Your task to perform on an android device: turn on location history Image 0: 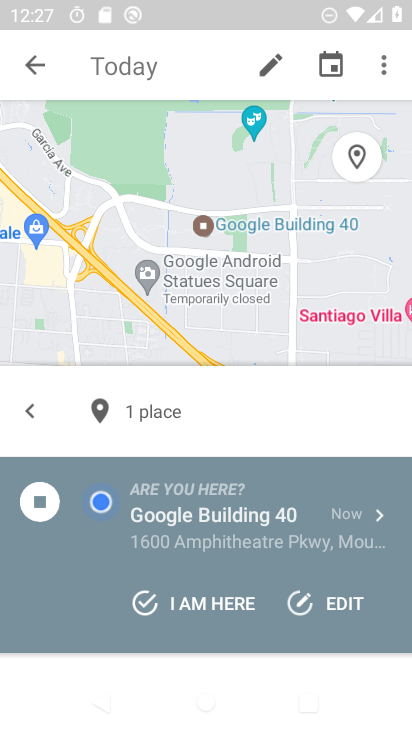
Step 0: press home button
Your task to perform on an android device: turn on location history Image 1: 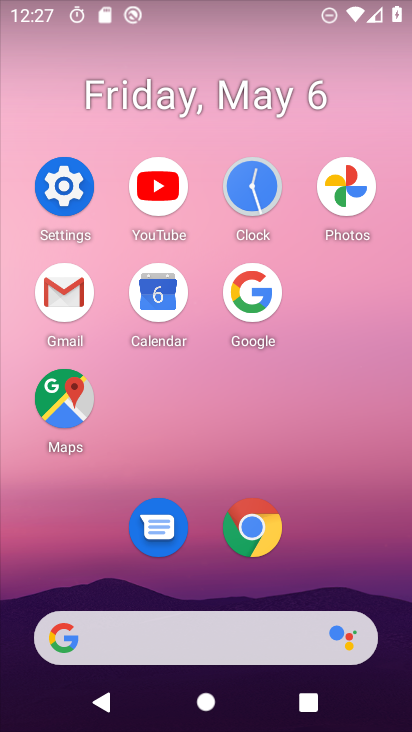
Step 1: click (70, 190)
Your task to perform on an android device: turn on location history Image 2: 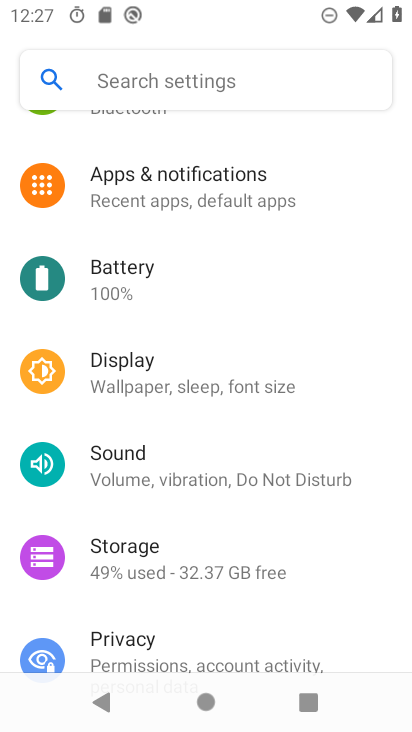
Step 2: drag from (288, 300) to (291, 65)
Your task to perform on an android device: turn on location history Image 3: 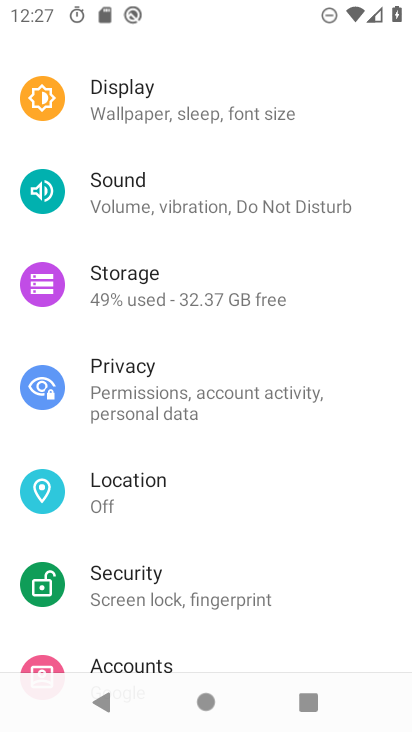
Step 3: click (208, 473)
Your task to perform on an android device: turn on location history Image 4: 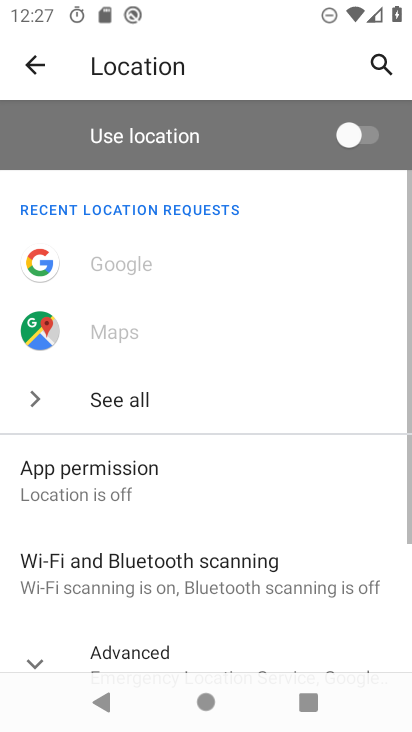
Step 4: click (367, 149)
Your task to perform on an android device: turn on location history Image 5: 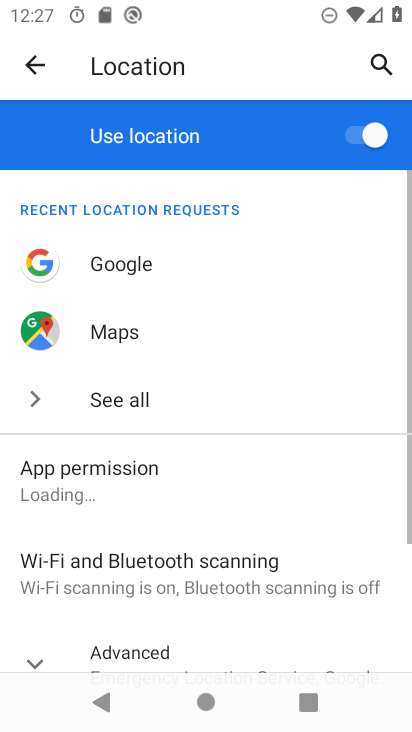
Step 5: task complete